Your task to perform on an android device: turn on wifi Image 0: 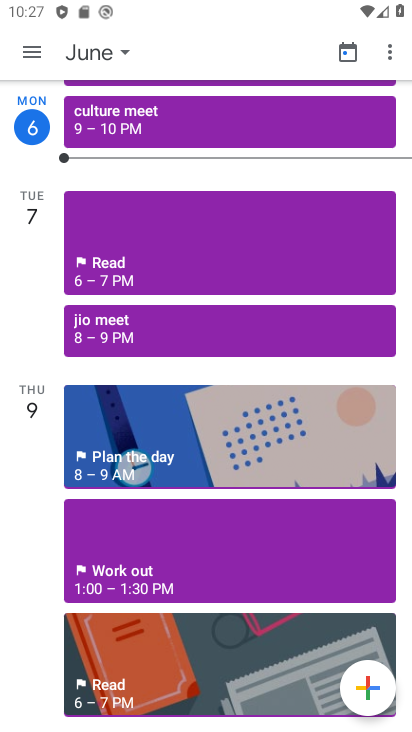
Step 0: task complete